Your task to perform on an android device: find which apps use the phone's location Image 0: 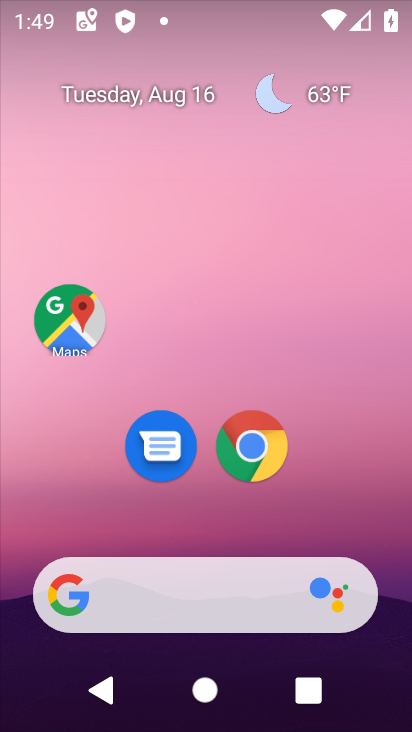
Step 0: drag from (194, 532) to (199, 34)
Your task to perform on an android device: find which apps use the phone's location Image 1: 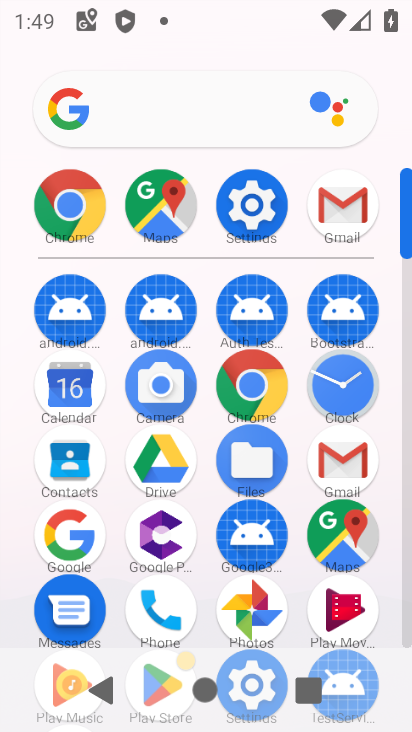
Step 1: click (250, 201)
Your task to perform on an android device: find which apps use the phone's location Image 2: 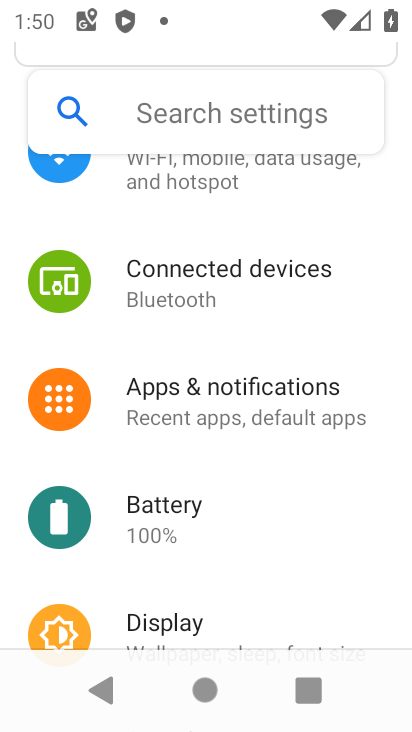
Step 2: drag from (218, 620) to (212, 140)
Your task to perform on an android device: find which apps use the phone's location Image 3: 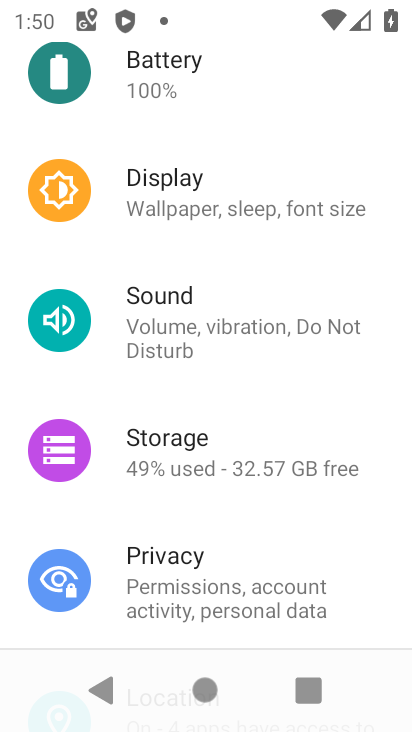
Step 3: drag from (222, 556) to (236, 27)
Your task to perform on an android device: find which apps use the phone's location Image 4: 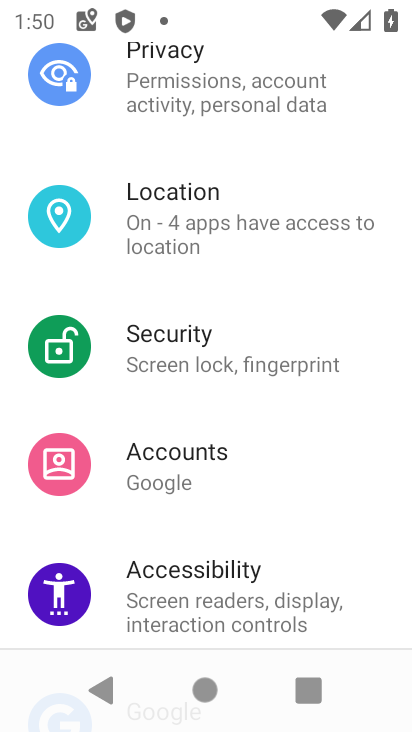
Step 4: click (233, 201)
Your task to perform on an android device: find which apps use the phone's location Image 5: 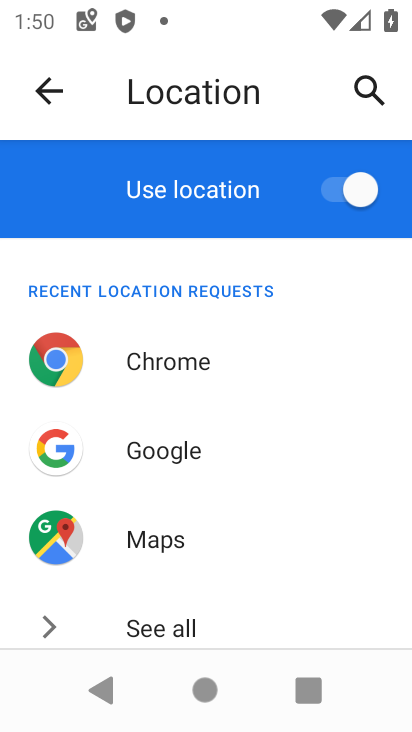
Step 5: task complete